Your task to perform on an android device: Open Google Chrome and open the bookmarks view Image 0: 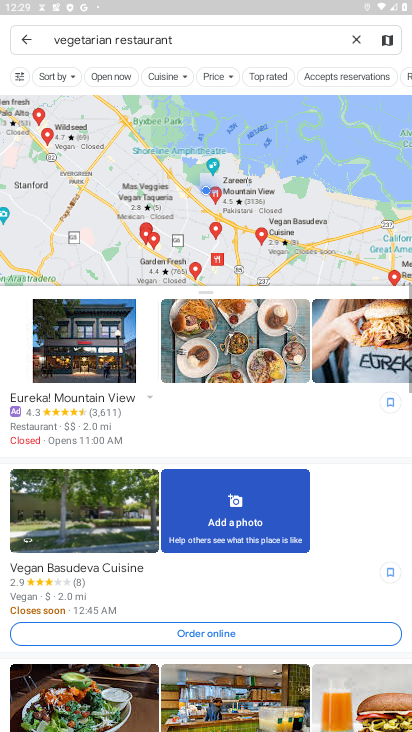
Step 0: click (240, 249)
Your task to perform on an android device: Open Google Chrome and open the bookmarks view Image 1: 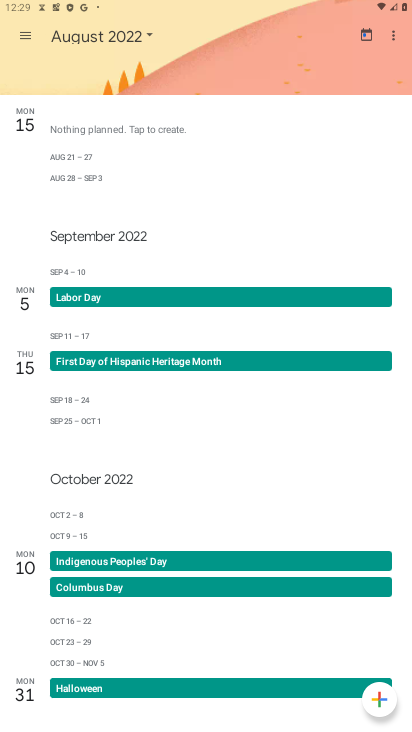
Step 1: press home button
Your task to perform on an android device: Open Google Chrome and open the bookmarks view Image 2: 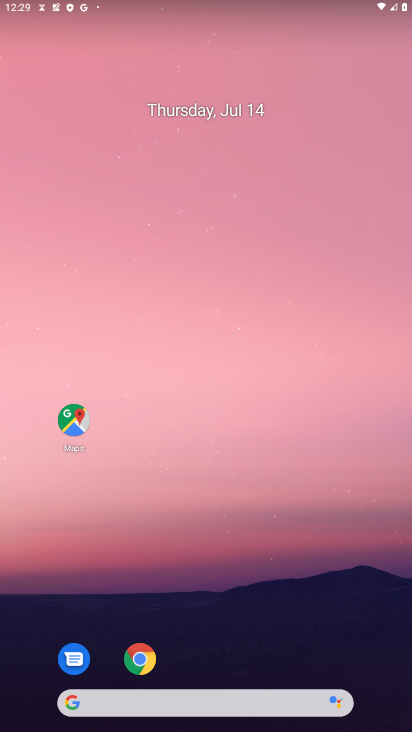
Step 2: drag from (46, 685) to (399, 51)
Your task to perform on an android device: Open Google Chrome and open the bookmarks view Image 3: 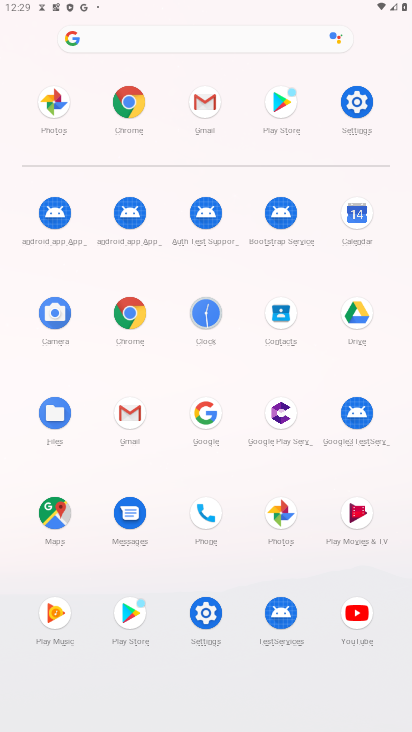
Step 3: click (143, 415)
Your task to perform on an android device: Open Google Chrome and open the bookmarks view Image 4: 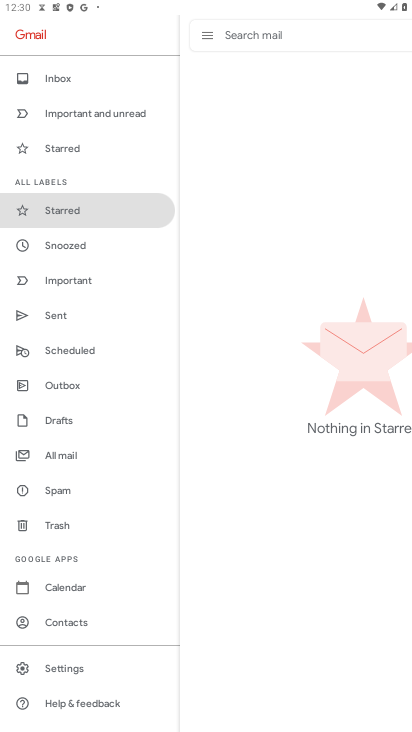
Step 4: task complete